Your task to perform on an android device: Do I have any events tomorrow? Image 0: 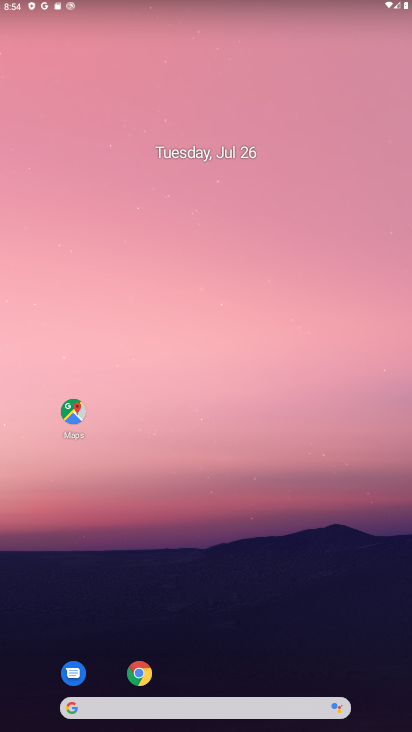
Step 0: drag from (217, 642) to (151, 138)
Your task to perform on an android device: Do I have any events tomorrow? Image 1: 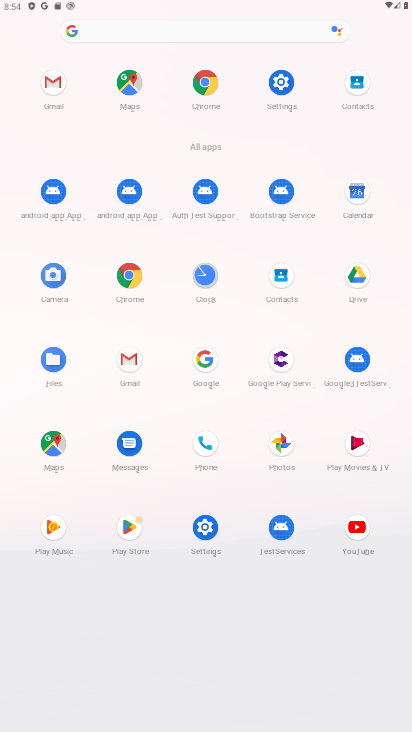
Step 1: click (352, 192)
Your task to perform on an android device: Do I have any events tomorrow? Image 2: 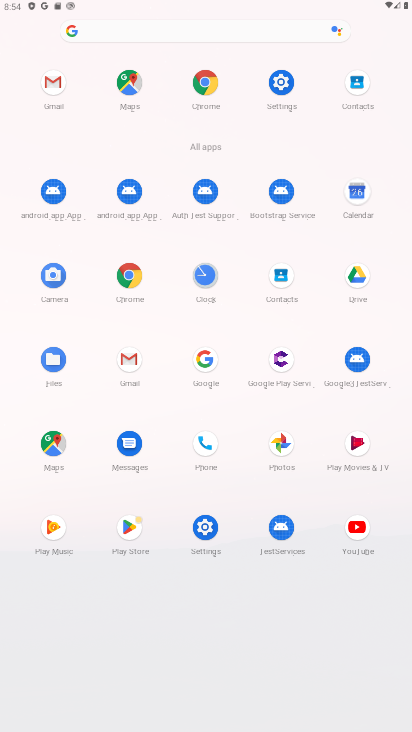
Step 2: click (355, 192)
Your task to perform on an android device: Do I have any events tomorrow? Image 3: 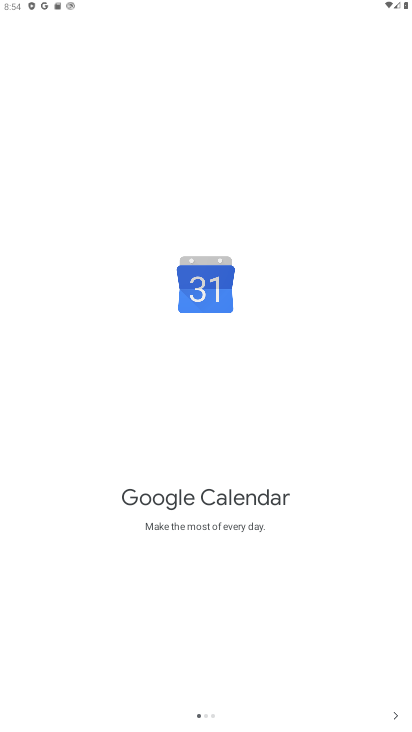
Step 3: click (397, 713)
Your task to perform on an android device: Do I have any events tomorrow? Image 4: 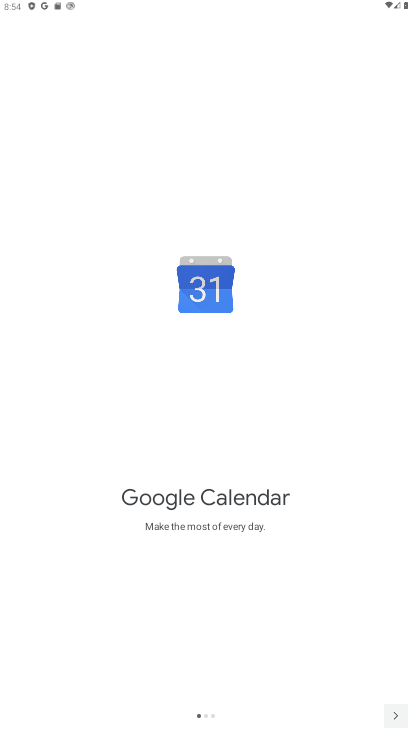
Step 4: click (394, 714)
Your task to perform on an android device: Do I have any events tomorrow? Image 5: 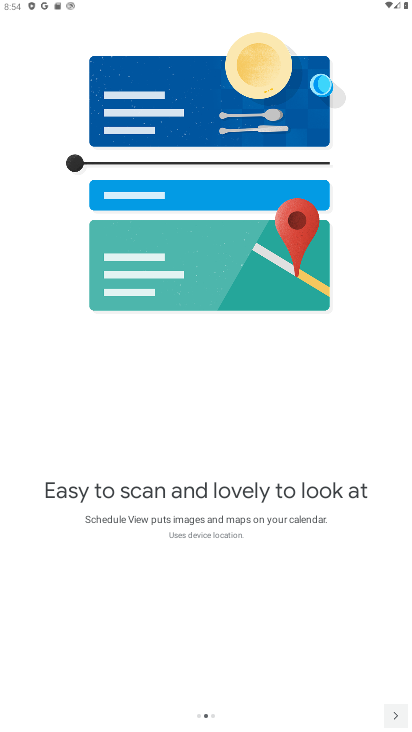
Step 5: click (392, 717)
Your task to perform on an android device: Do I have any events tomorrow? Image 6: 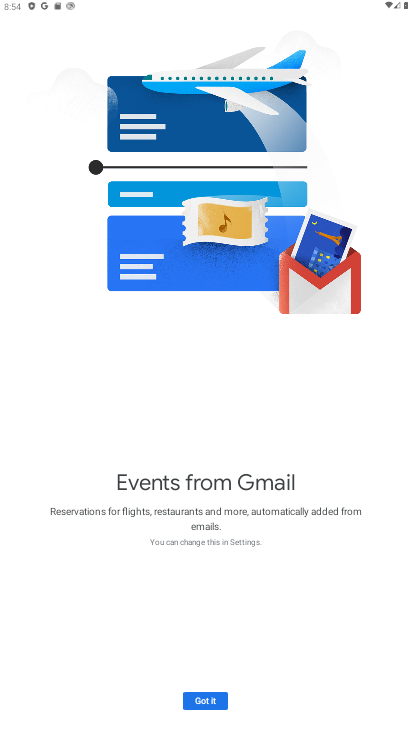
Step 6: click (397, 714)
Your task to perform on an android device: Do I have any events tomorrow? Image 7: 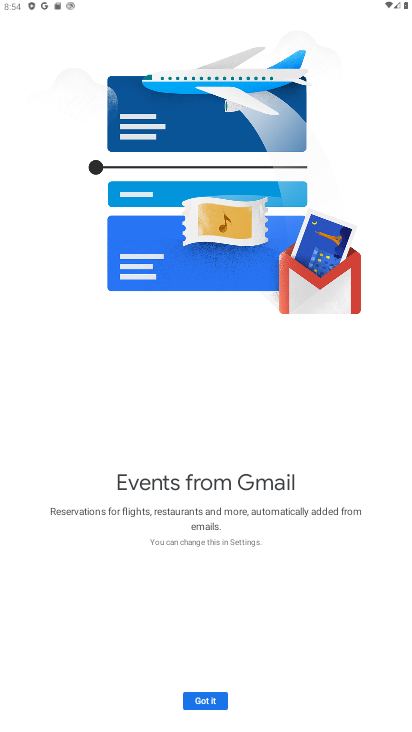
Step 7: click (397, 714)
Your task to perform on an android device: Do I have any events tomorrow? Image 8: 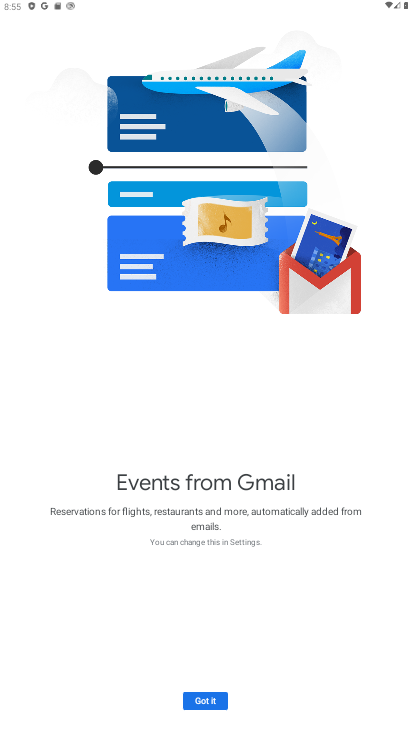
Step 8: click (398, 713)
Your task to perform on an android device: Do I have any events tomorrow? Image 9: 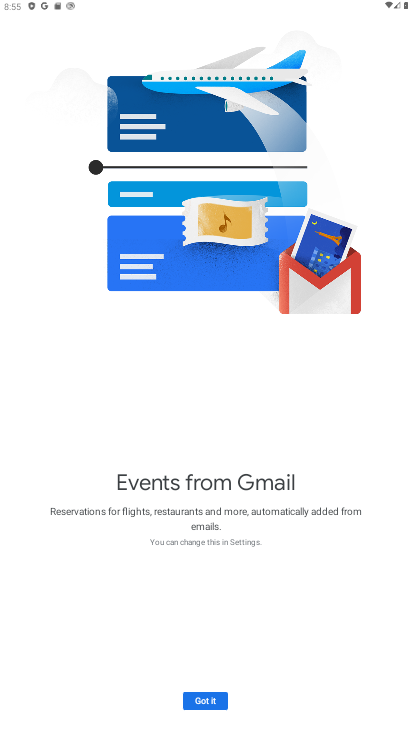
Step 9: click (402, 710)
Your task to perform on an android device: Do I have any events tomorrow? Image 10: 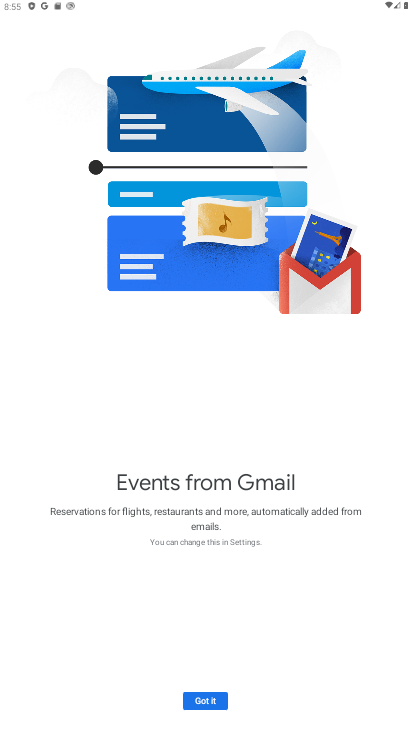
Step 10: click (197, 704)
Your task to perform on an android device: Do I have any events tomorrow? Image 11: 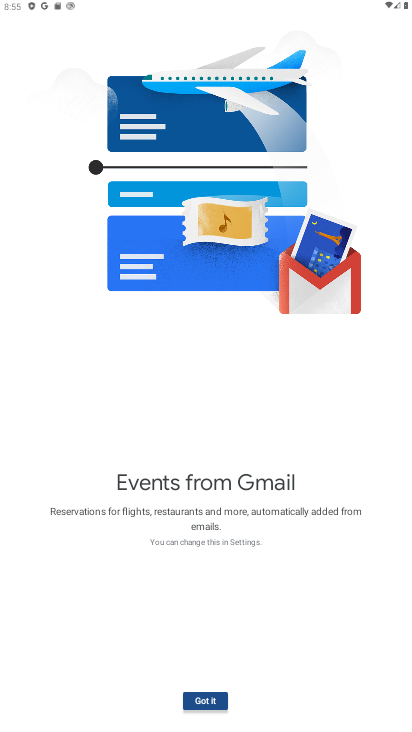
Step 11: click (197, 703)
Your task to perform on an android device: Do I have any events tomorrow? Image 12: 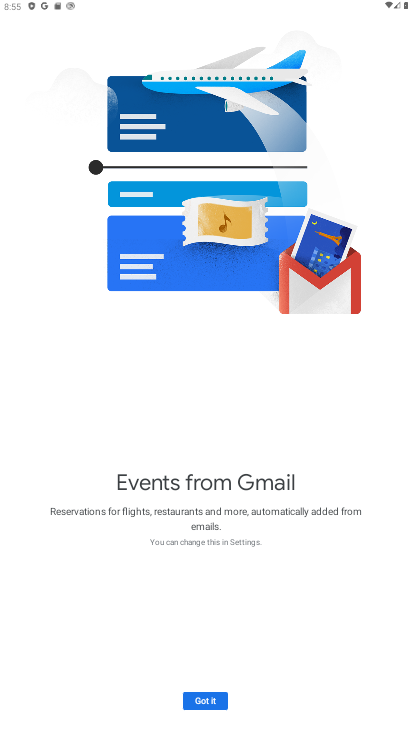
Step 12: click (198, 702)
Your task to perform on an android device: Do I have any events tomorrow? Image 13: 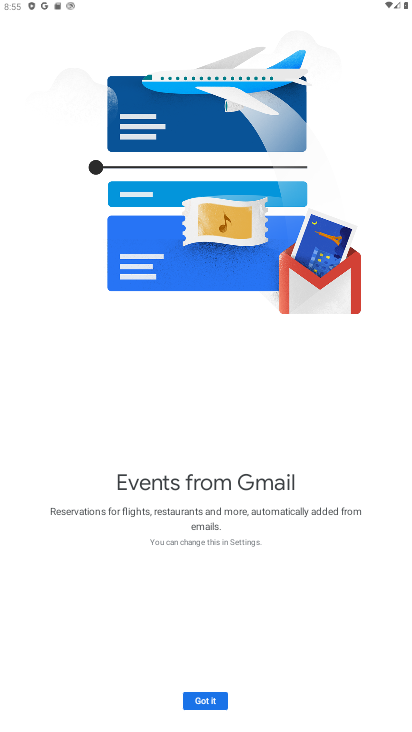
Step 13: click (201, 702)
Your task to perform on an android device: Do I have any events tomorrow? Image 14: 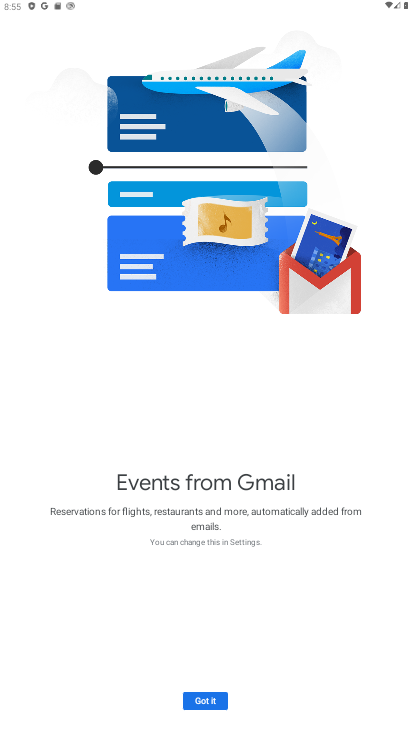
Step 14: click (210, 701)
Your task to perform on an android device: Do I have any events tomorrow? Image 15: 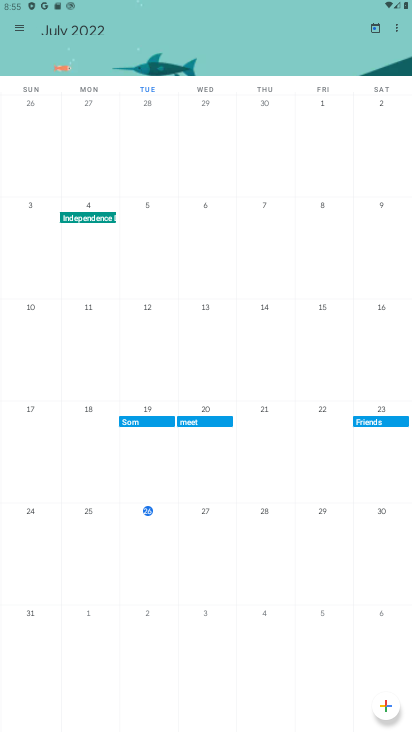
Step 15: click (374, 506)
Your task to perform on an android device: Do I have any events tomorrow? Image 16: 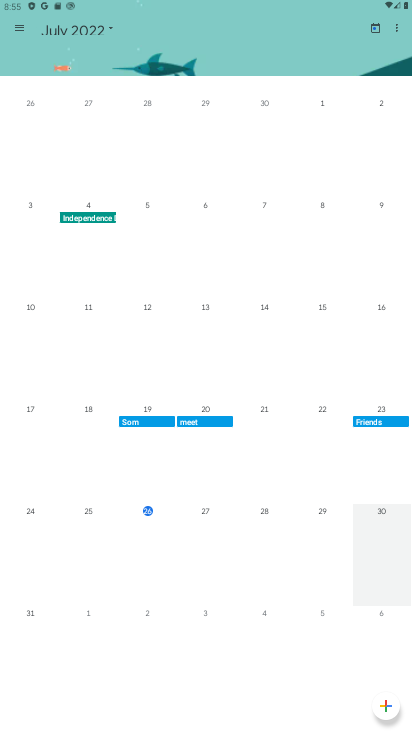
Step 16: click (378, 506)
Your task to perform on an android device: Do I have any events tomorrow? Image 17: 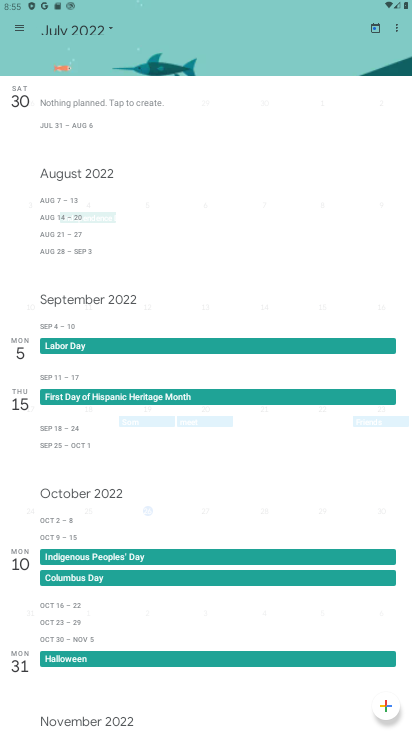
Step 17: click (379, 506)
Your task to perform on an android device: Do I have any events tomorrow? Image 18: 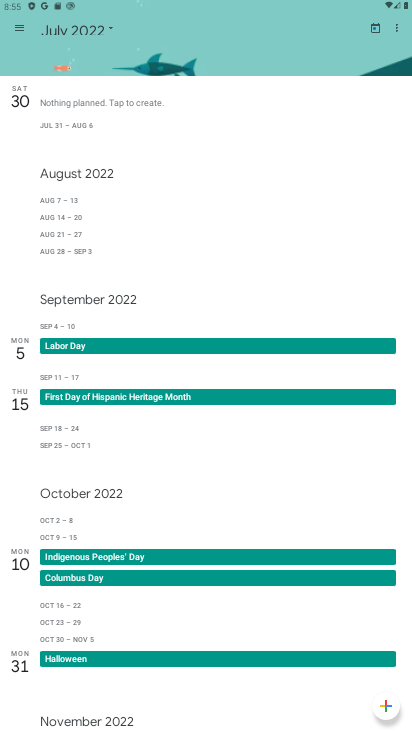
Step 18: click (379, 506)
Your task to perform on an android device: Do I have any events tomorrow? Image 19: 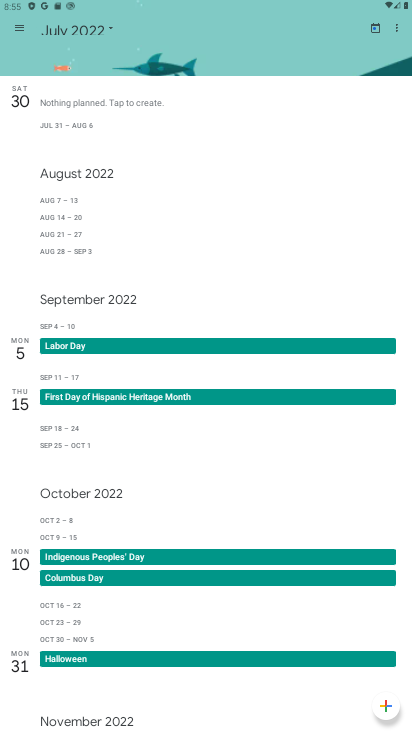
Step 19: click (109, 33)
Your task to perform on an android device: Do I have any events tomorrow? Image 20: 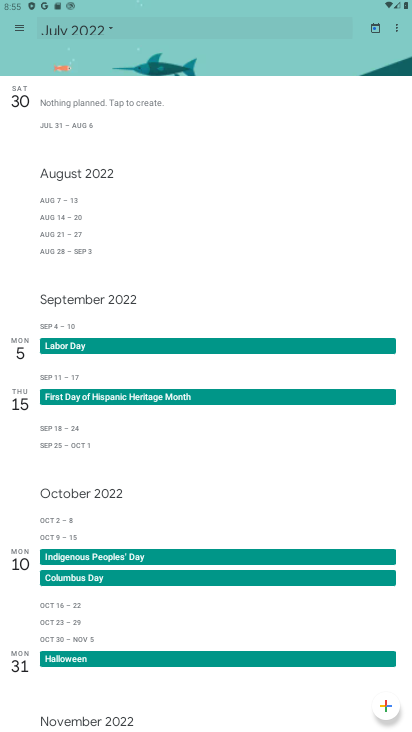
Step 20: click (109, 31)
Your task to perform on an android device: Do I have any events tomorrow? Image 21: 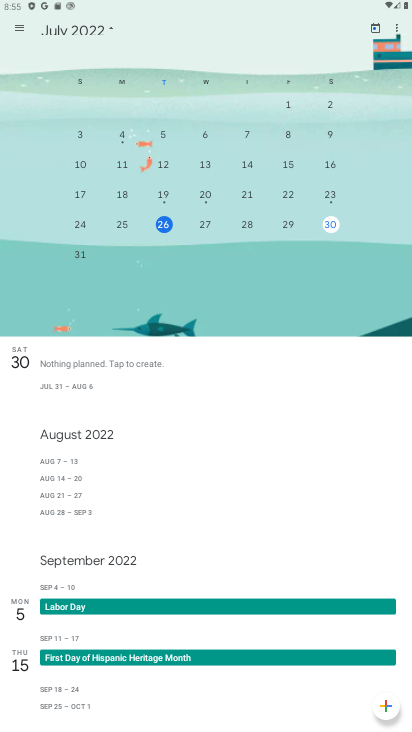
Step 21: click (110, 31)
Your task to perform on an android device: Do I have any events tomorrow? Image 22: 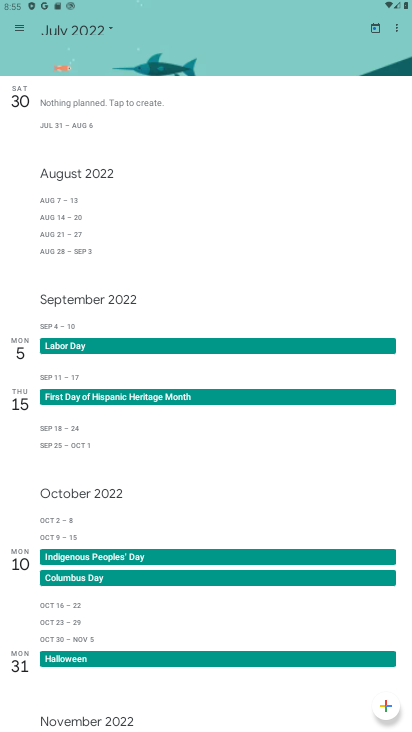
Step 22: click (107, 26)
Your task to perform on an android device: Do I have any events tomorrow? Image 23: 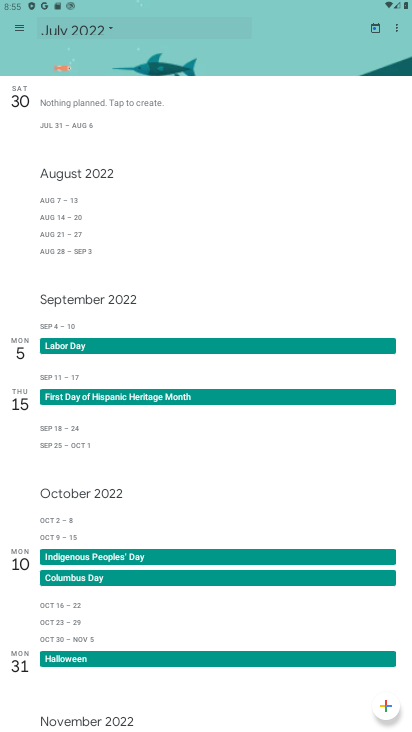
Step 23: click (110, 25)
Your task to perform on an android device: Do I have any events tomorrow? Image 24: 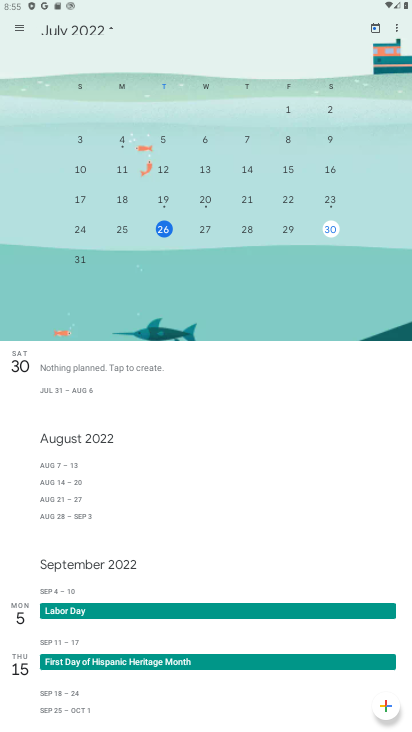
Step 24: click (249, 230)
Your task to perform on an android device: Do I have any events tomorrow? Image 25: 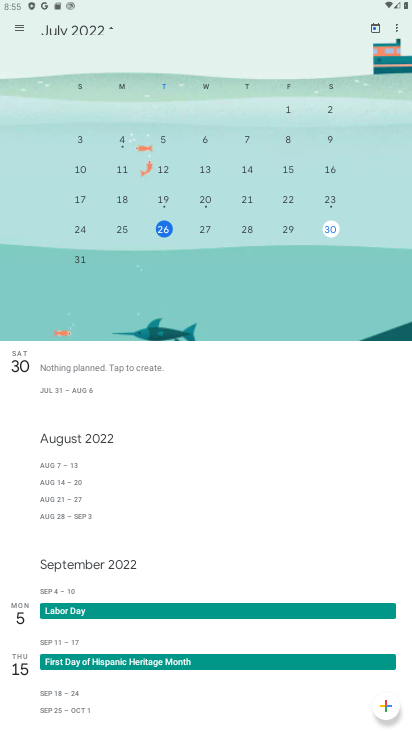
Step 25: click (249, 230)
Your task to perform on an android device: Do I have any events tomorrow? Image 26: 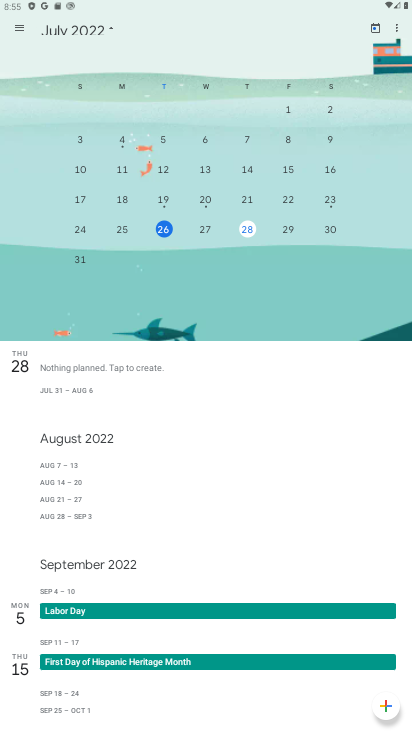
Step 26: click (249, 230)
Your task to perform on an android device: Do I have any events tomorrow? Image 27: 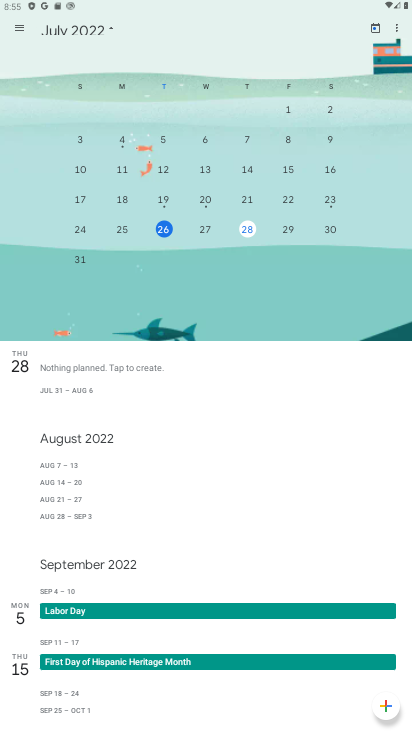
Step 27: click (249, 230)
Your task to perform on an android device: Do I have any events tomorrow? Image 28: 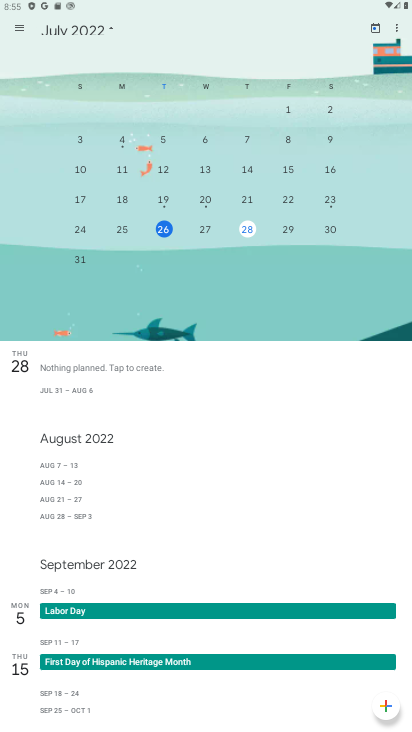
Step 28: task complete